Your task to perform on an android device: toggle translation in the chrome app Image 0: 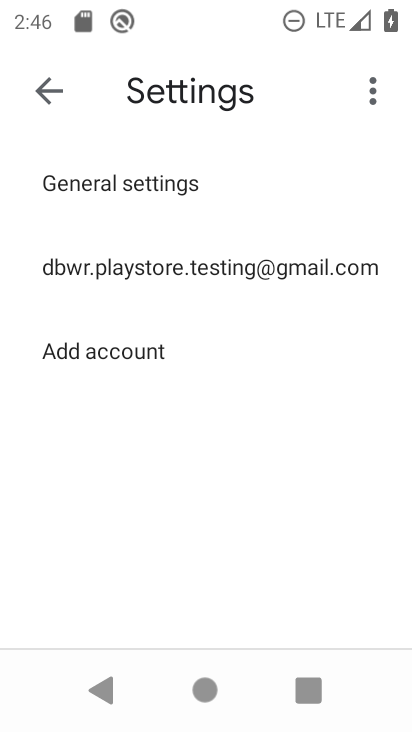
Step 0: press home button
Your task to perform on an android device: toggle translation in the chrome app Image 1: 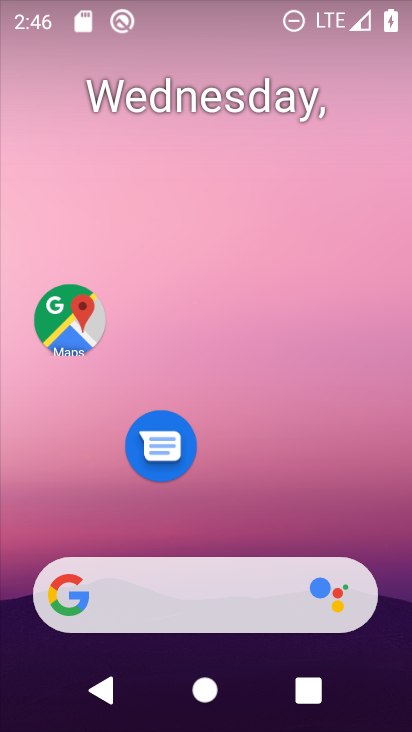
Step 1: drag from (334, 511) to (308, 76)
Your task to perform on an android device: toggle translation in the chrome app Image 2: 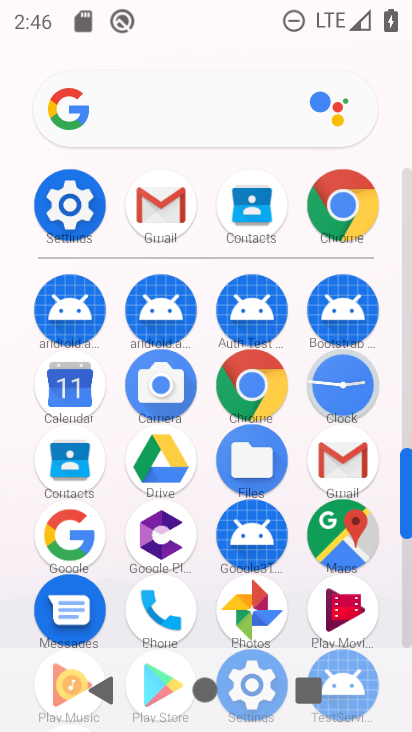
Step 2: click (331, 236)
Your task to perform on an android device: toggle translation in the chrome app Image 3: 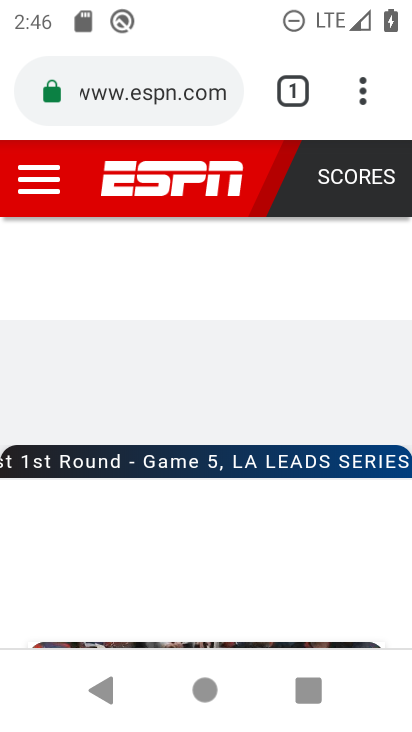
Step 3: click (357, 91)
Your task to perform on an android device: toggle translation in the chrome app Image 4: 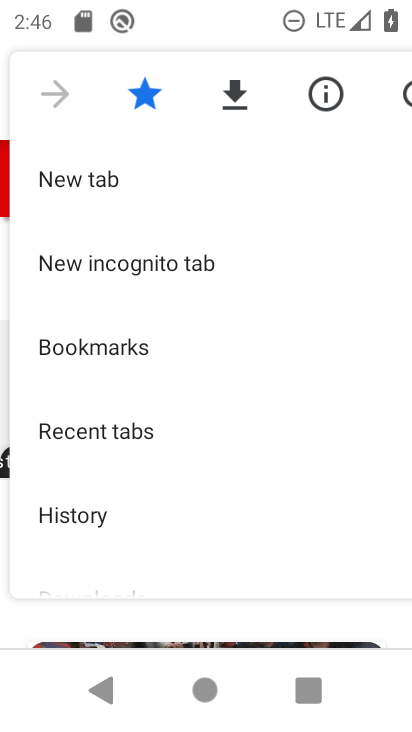
Step 4: drag from (254, 494) to (249, 297)
Your task to perform on an android device: toggle translation in the chrome app Image 5: 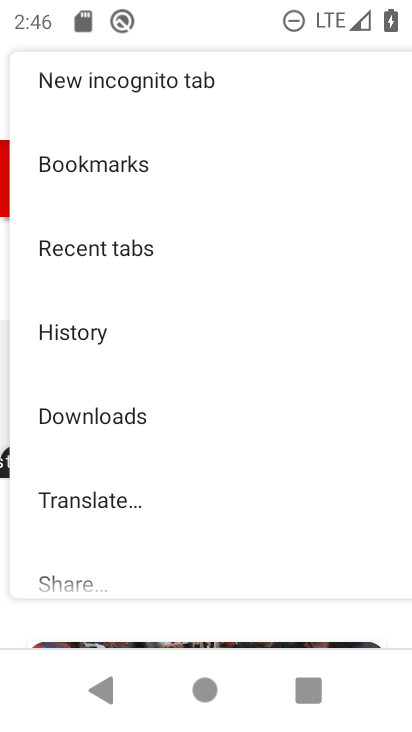
Step 5: click (215, 489)
Your task to perform on an android device: toggle translation in the chrome app Image 6: 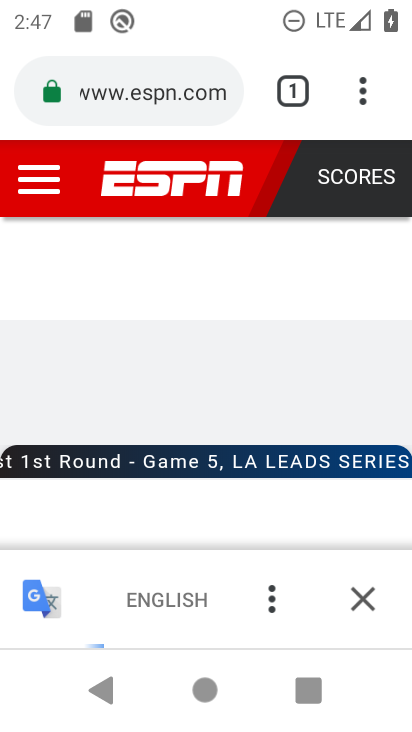
Step 6: click (217, 621)
Your task to perform on an android device: toggle translation in the chrome app Image 7: 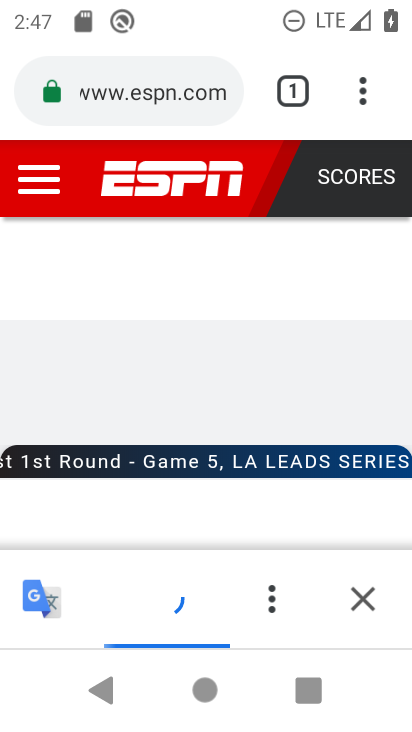
Step 7: task complete